Your task to perform on an android device: all mails in gmail Image 0: 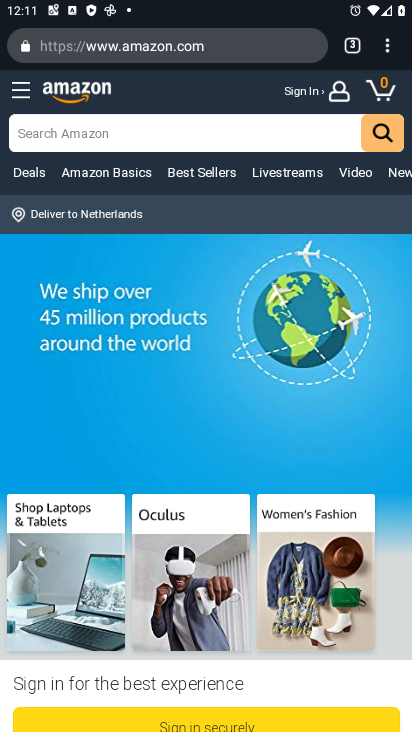
Step 0: press home button
Your task to perform on an android device: all mails in gmail Image 1: 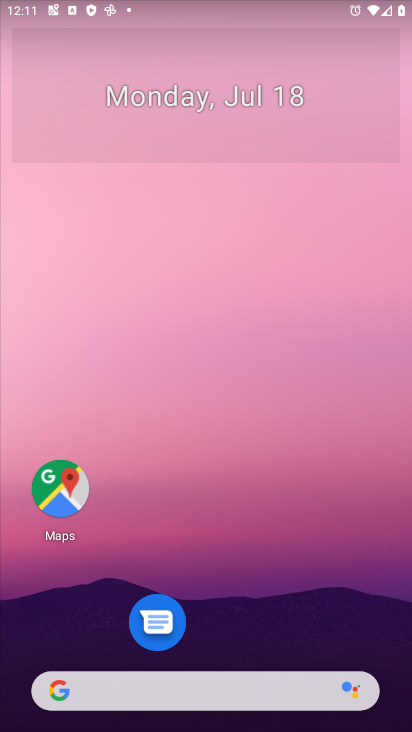
Step 1: drag from (126, 583) to (125, 221)
Your task to perform on an android device: all mails in gmail Image 2: 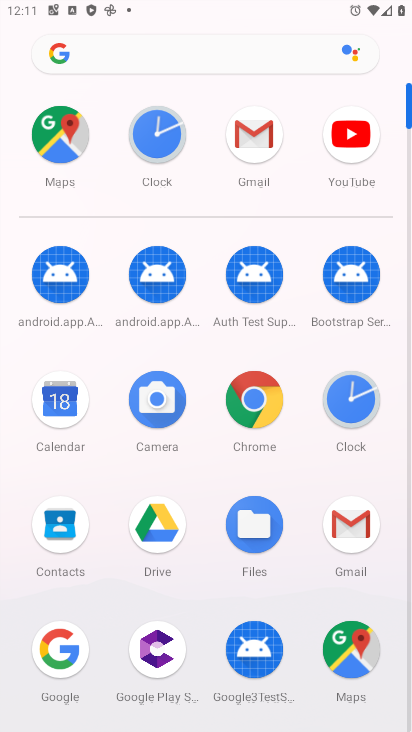
Step 2: click (239, 143)
Your task to perform on an android device: all mails in gmail Image 3: 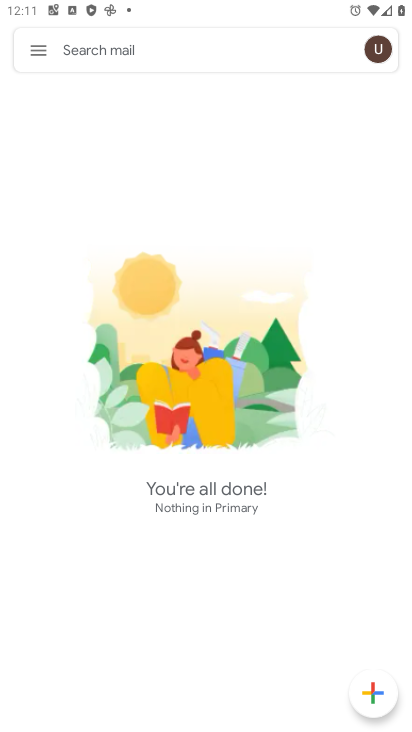
Step 3: click (51, 47)
Your task to perform on an android device: all mails in gmail Image 4: 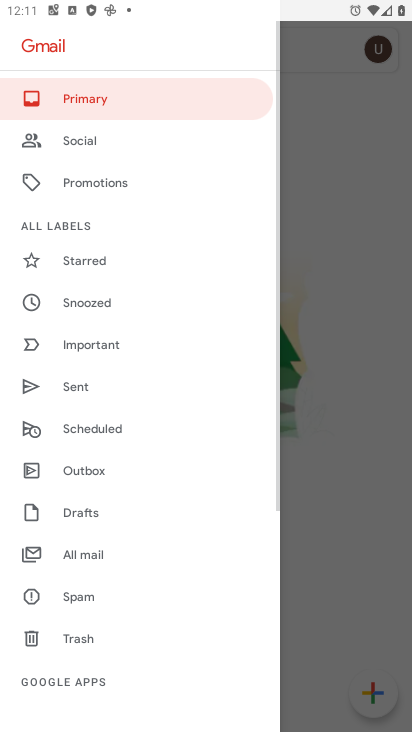
Step 4: click (109, 549)
Your task to perform on an android device: all mails in gmail Image 5: 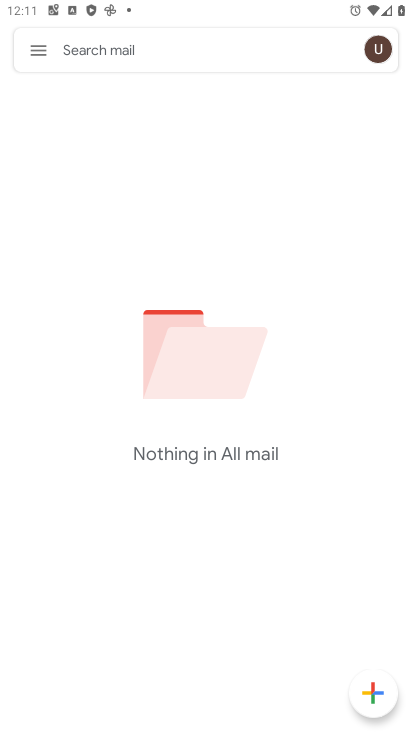
Step 5: task complete